Your task to perform on an android device: What's the weather today? Image 0: 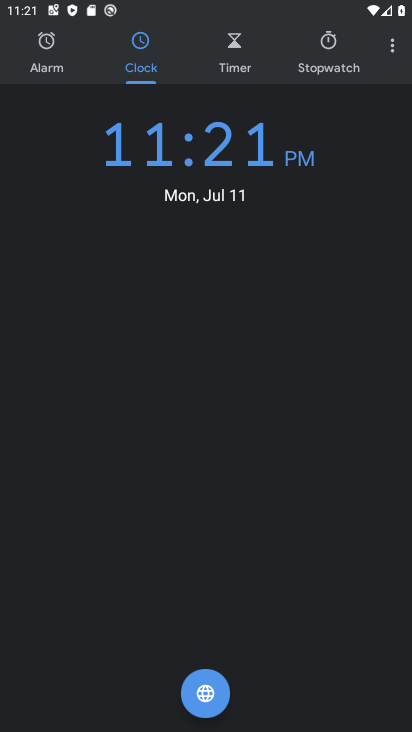
Step 0: press home button
Your task to perform on an android device: What's the weather today? Image 1: 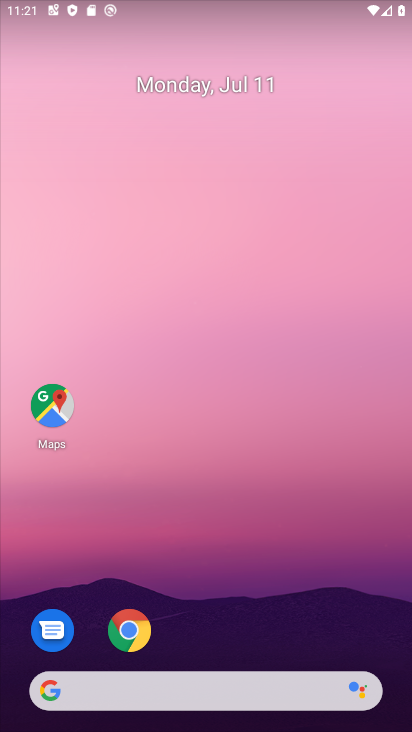
Step 1: click (136, 645)
Your task to perform on an android device: What's the weather today? Image 2: 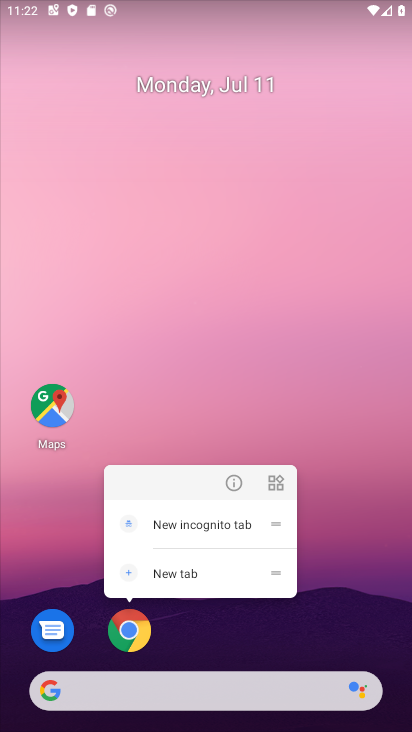
Step 2: click (136, 645)
Your task to perform on an android device: What's the weather today? Image 3: 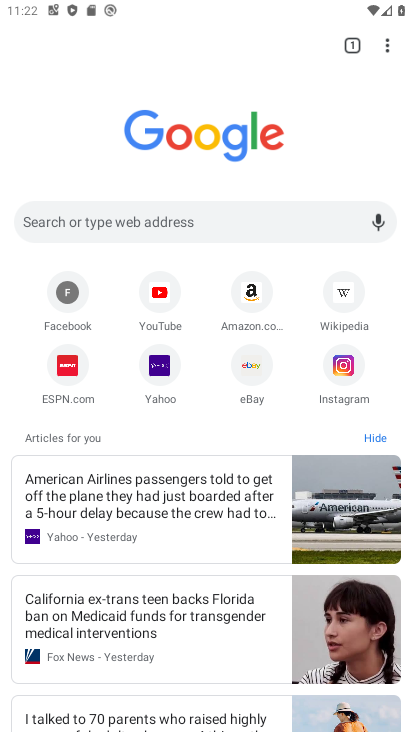
Step 3: click (102, 218)
Your task to perform on an android device: What's the weather today? Image 4: 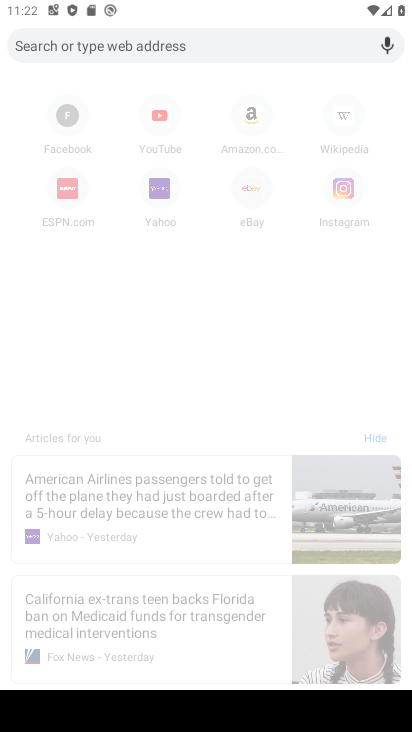
Step 4: type "weather today"
Your task to perform on an android device: What's the weather today? Image 5: 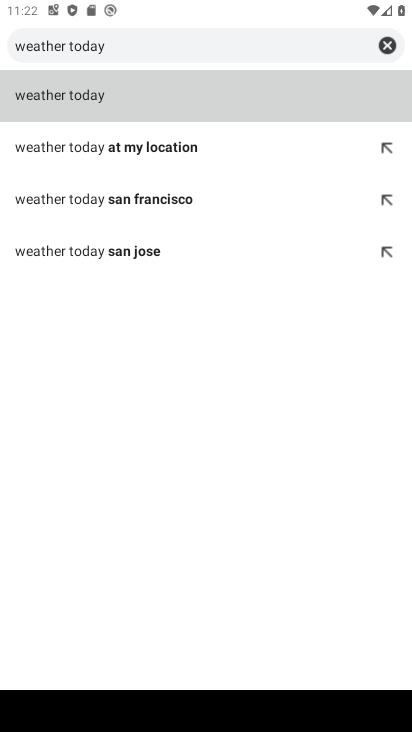
Step 5: click (109, 78)
Your task to perform on an android device: What's the weather today? Image 6: 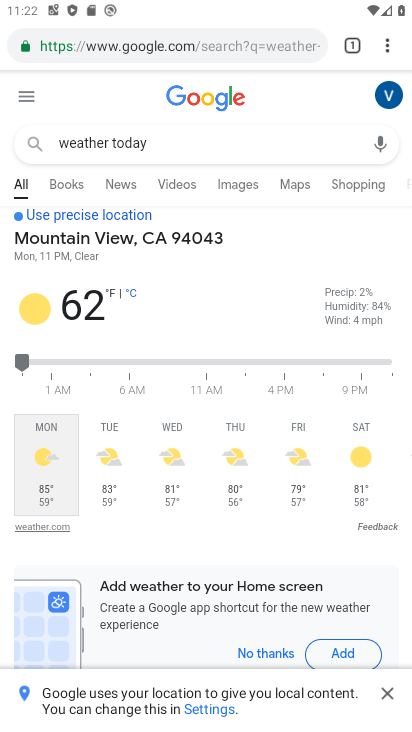
Step 6: task complete